Your task to perform on an android device: turn off improve location accuracy Image 0: 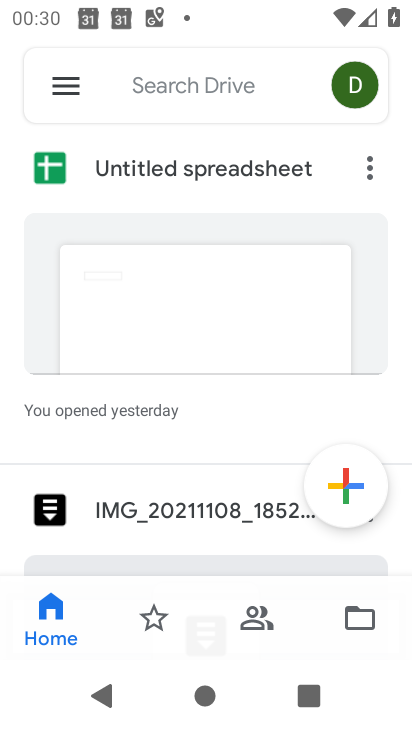
Step 0: press home button
Your task to perform on an android device: turn off improve location accuracy Image 1: 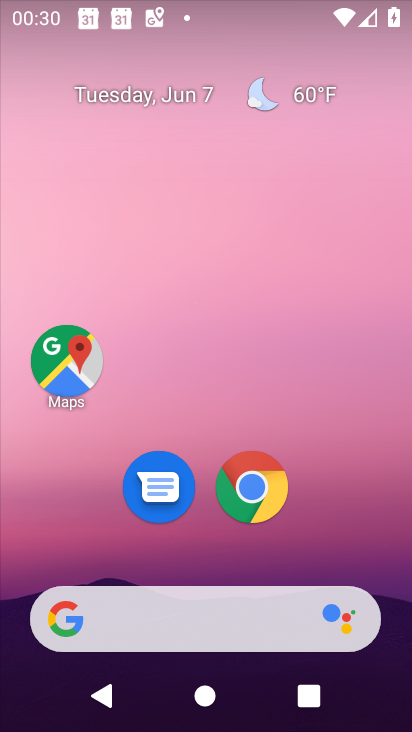
Step 1: drag from (383, 555) to (254, 67)
Your task to perform on an android device: turn off improve location accuracy Image 2: 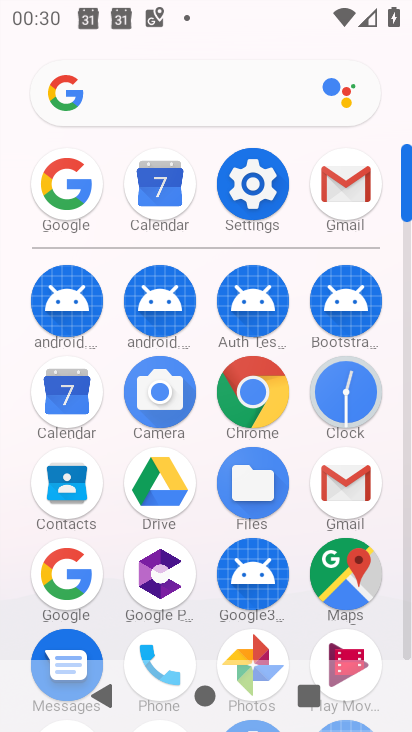
Step 2: click (244, 183)
Your task to perform on an android device: turn off improve location accuracy Image 3: 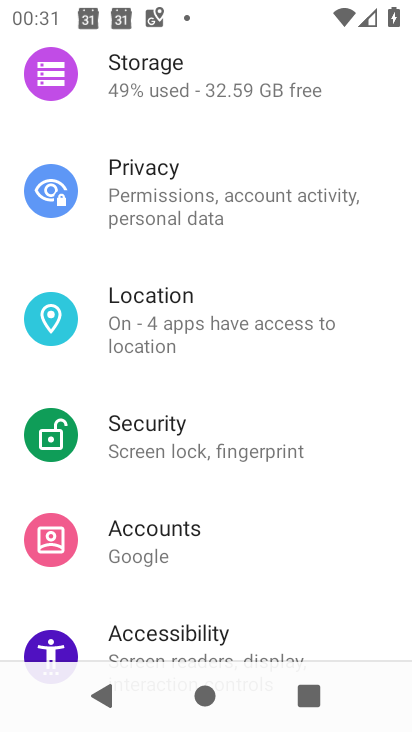
Step 3: click (241, 313)
Your task to perform on an android device: turn off improve location accuracy Image 4: 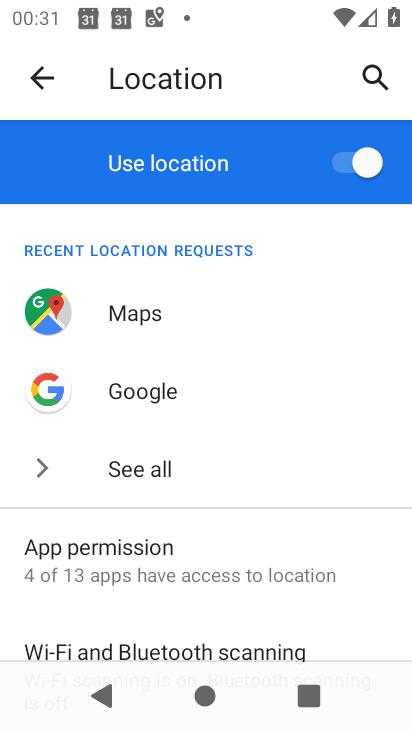
Step 4: drag from (289, 620) to (240, 206)
Your task to perform on an android device: turn off improve location accuracy Image 5: 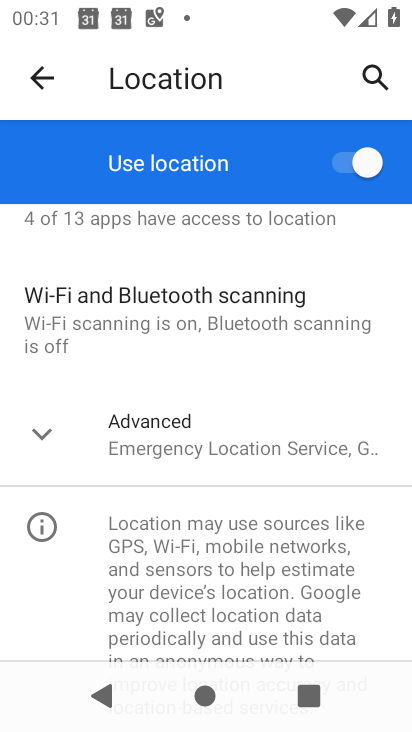
Step 5: click (288, 428)
Your task to perform on an android device: turn off improve location accuracy Image 6: 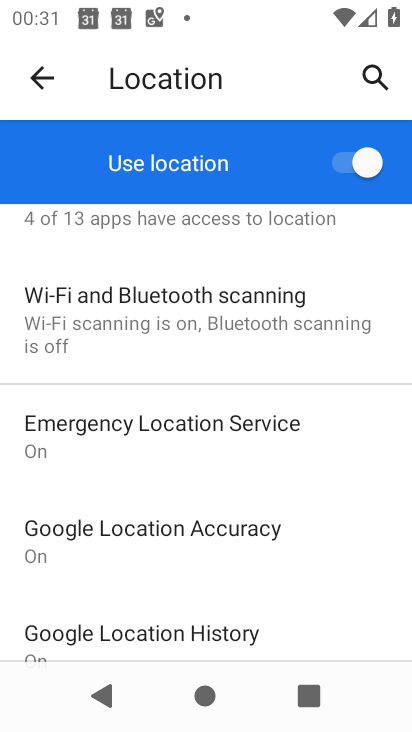
Step 6: click (294, 529)
Your task to perform on an android device: turn off improve location accuracy Image 7: 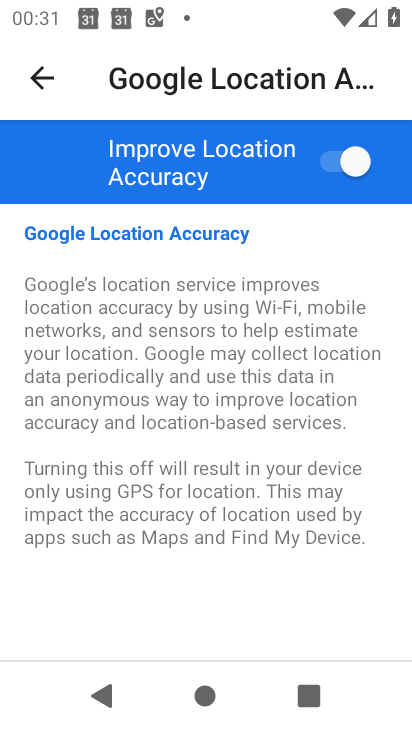
Step 7: click (333, 164)
Your task to perform on an android device: turn off improve location accuracy Image 8: 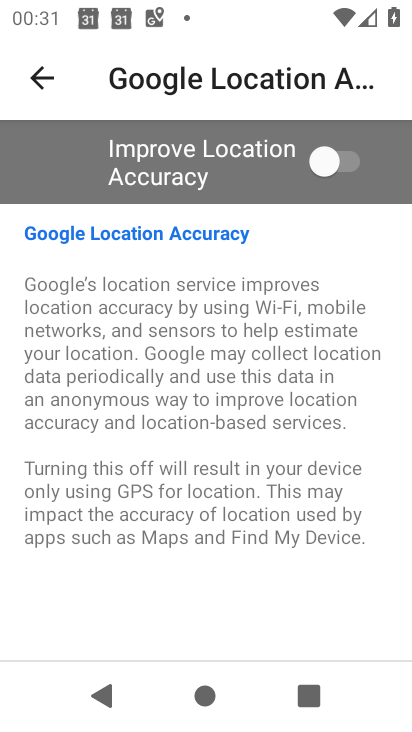
Step 8: task complete